Your task to perform on an android device: See recent photos Image 0: 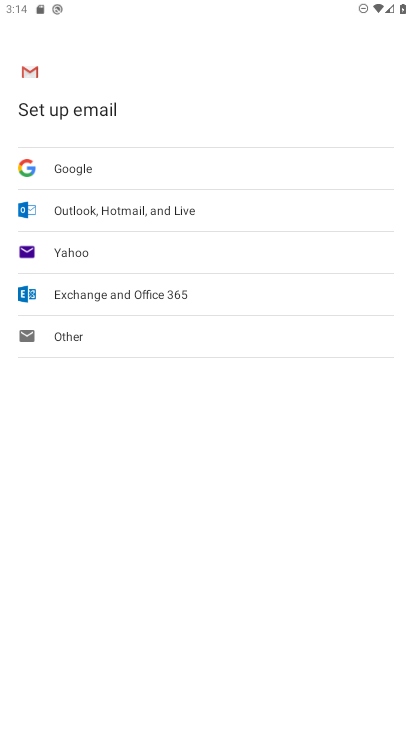
Step 0: press home button
Your task to perform on an android device: See recent photos Image 1: 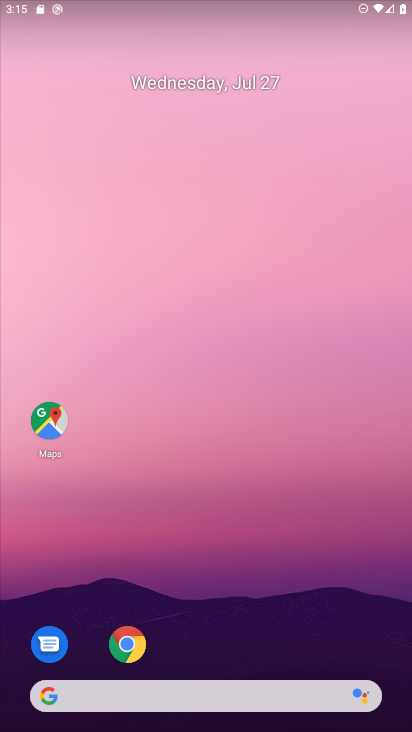
Step 1: drag from (242, 590) to (206, 0)
Your task to perform on an android device: See recent photos Image 2: 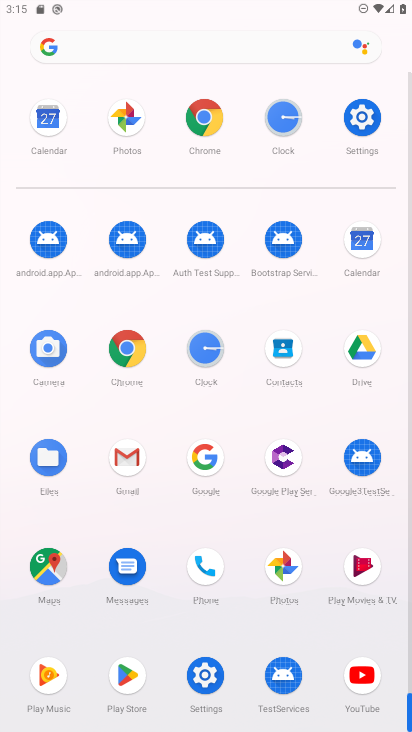
Step 2: click (287, 575)
Your task to perform on an android device: See recent photos Image 3: 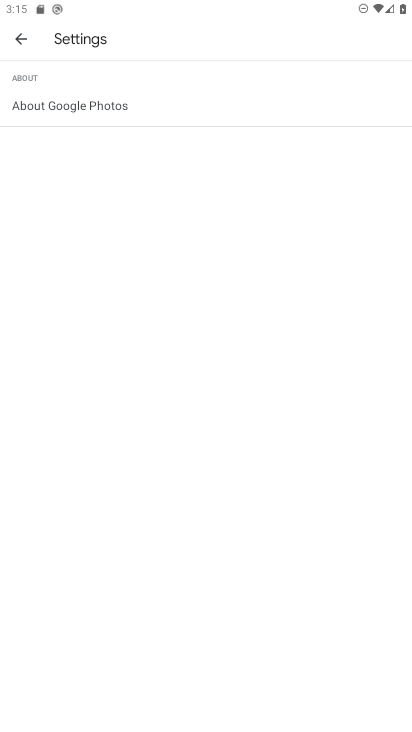
Step 3: click (23, 38)
Your task to perform on an android device: See recent photos Image 4: 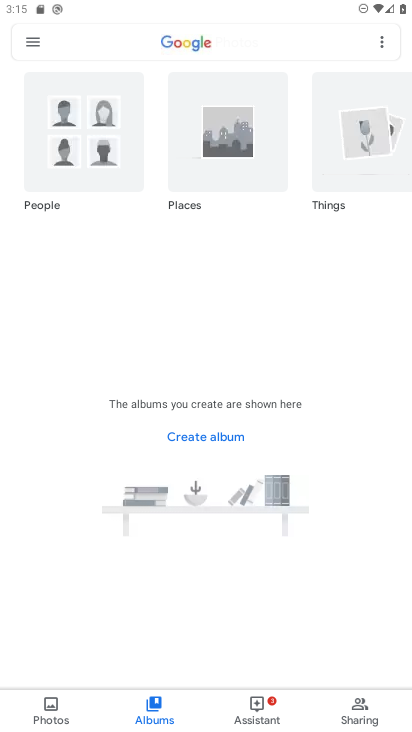
Step 4: click (54, 713)
Your task to perform on an android device: See recent photos Image 5: 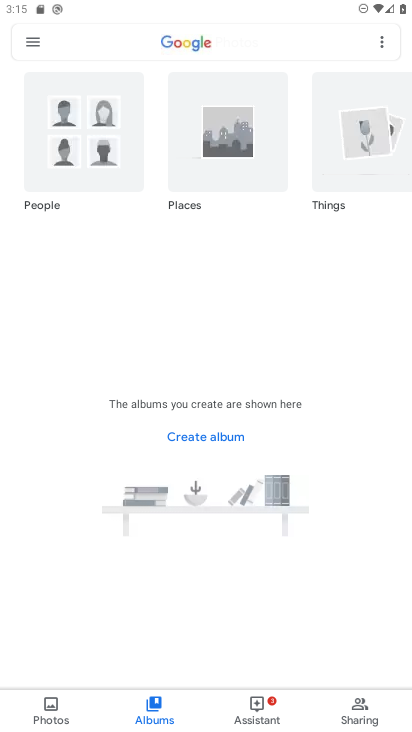
Step 5: click (50, 713)
Your task to perform on an android device: See recent photos Image 6: 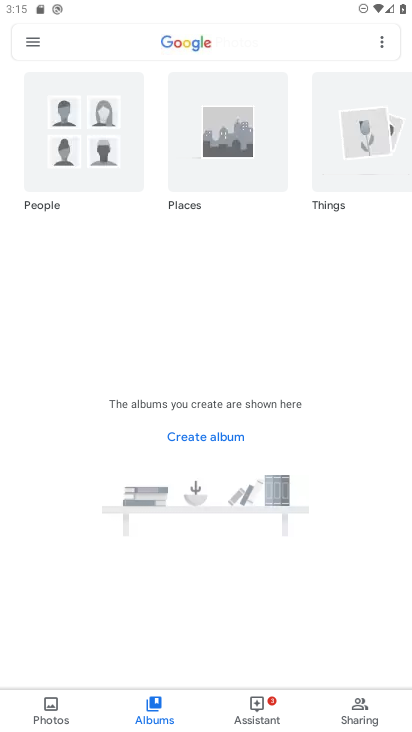
Step 6: click (56, 703)
Your task to perform on an android device: See recent photos Image 7: 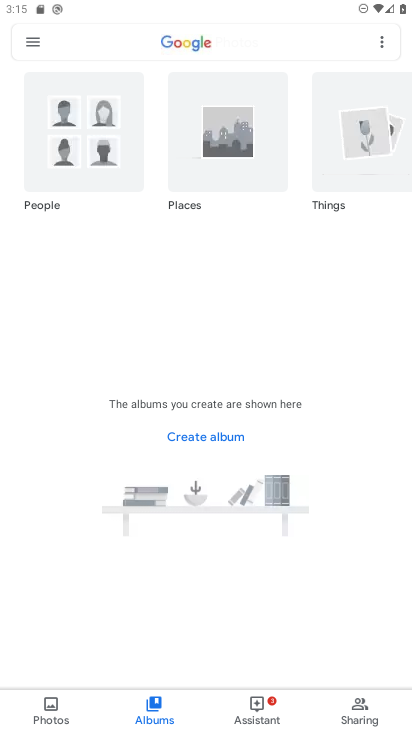
Step 7: click (46, 712)
Your task to perform on an android device: See recent photos Image 8: 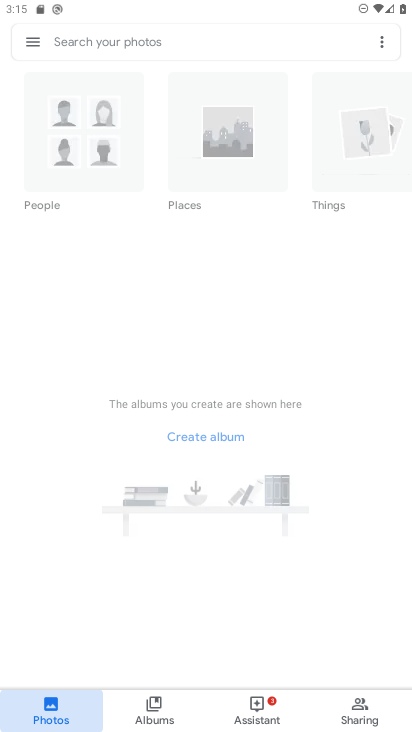
Step 8: click (53, 707)
Your task to perform on an android device: See recent photos Image 9: 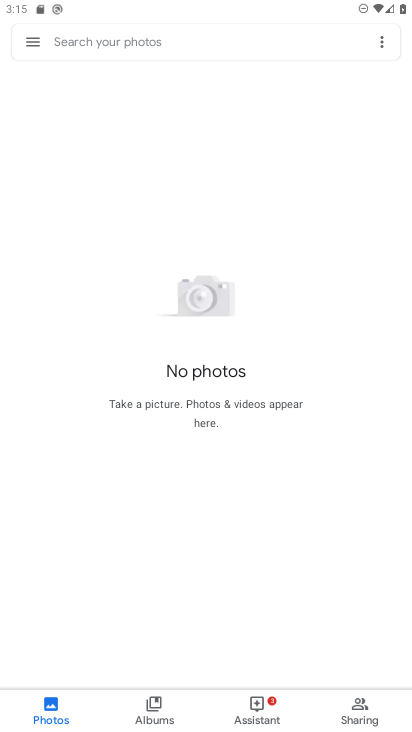
Step 9: task complete